Your task to perform on an android device: change notifications settings Image 0: 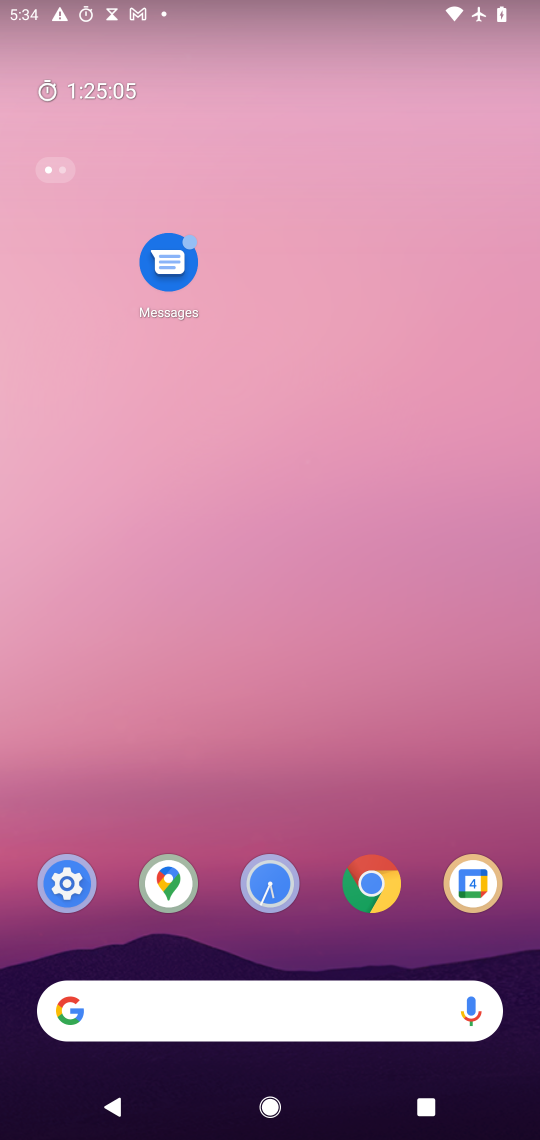
Step 0: drag from (308, 935) to (316, 68)
Your task to perform on an android device: change notifications settings Image 1: 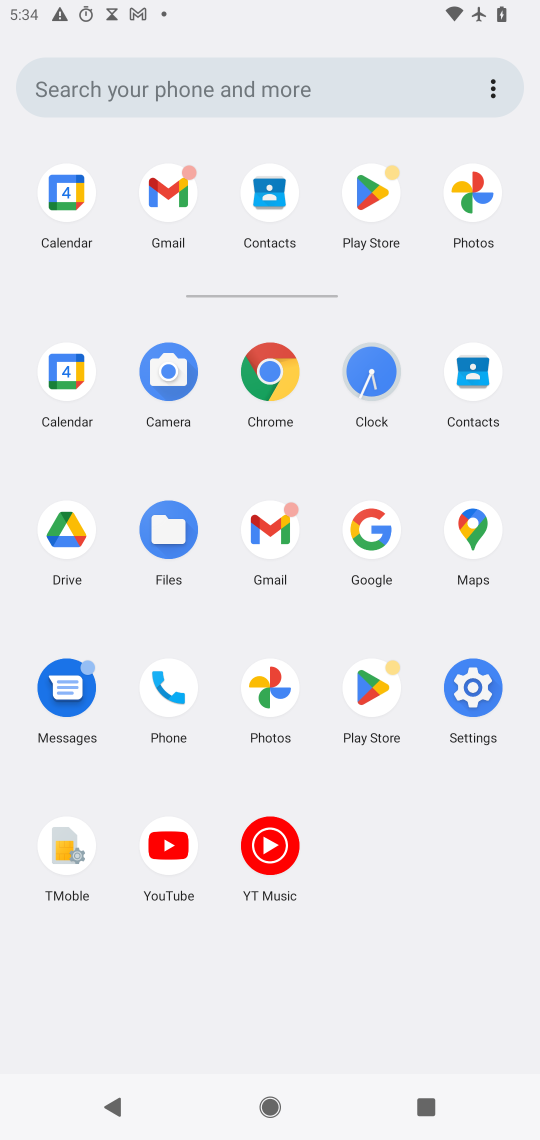
Step 1: click (475, 689)
Your task to perform on an android device: change notifications settings Image 2: 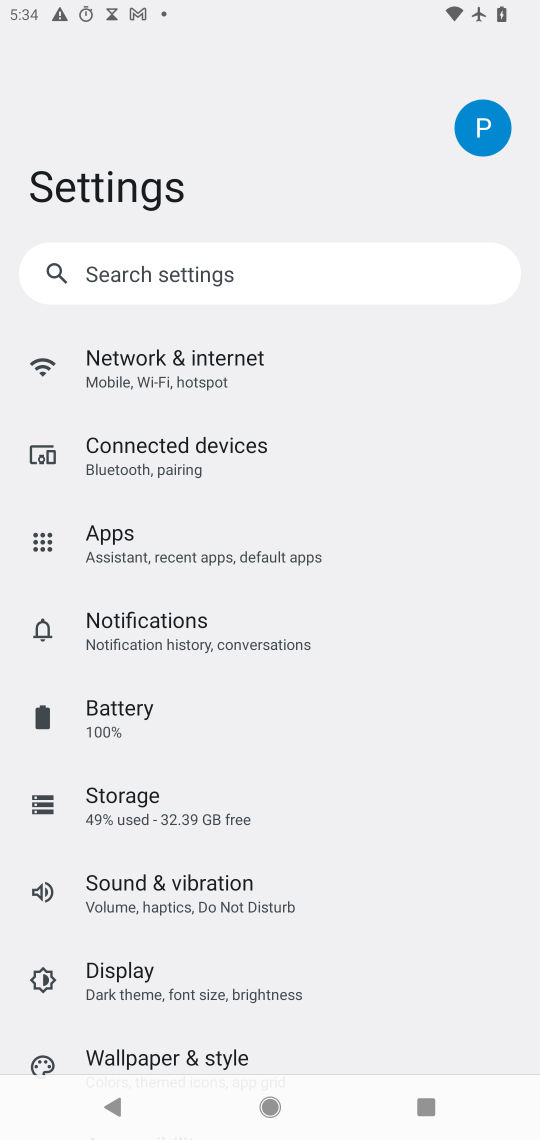
Step 2: click (188, 634)
Your task to perform on an android device: change notifications settings Image 3: 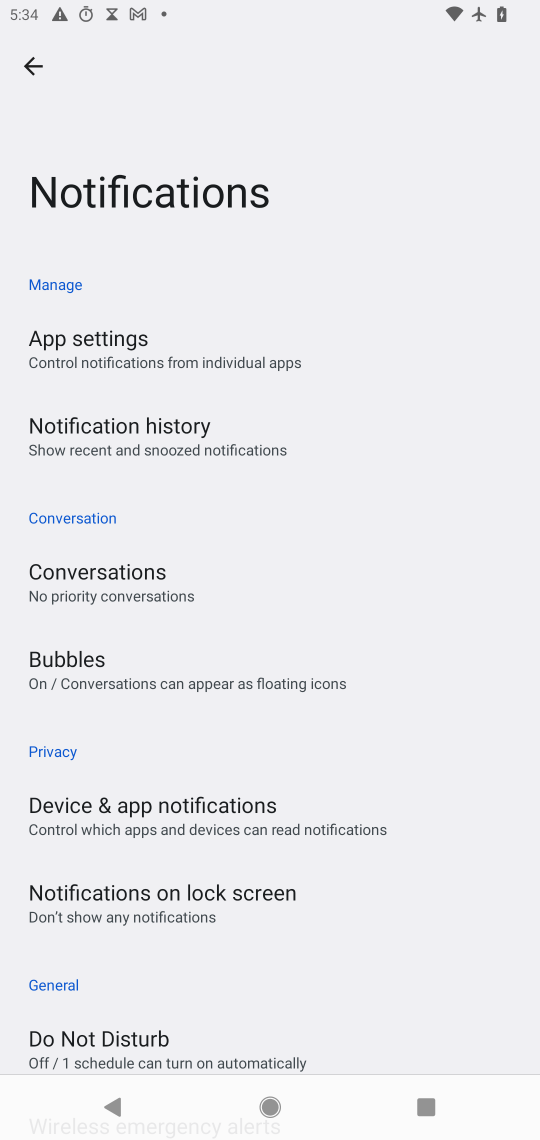
Step 3: drag from (206, 968) to (254, 582)
Your task to perform on an android device: change notifications settings Image 4: 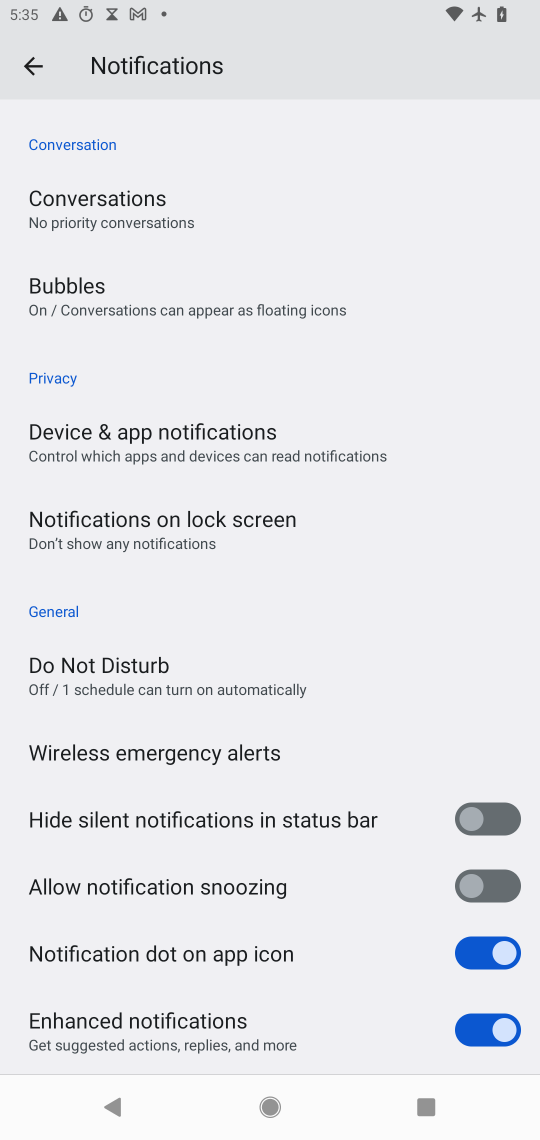
Step 4: click (506, 806)
Your task to perform on an android device: change notifications settings Image 5: 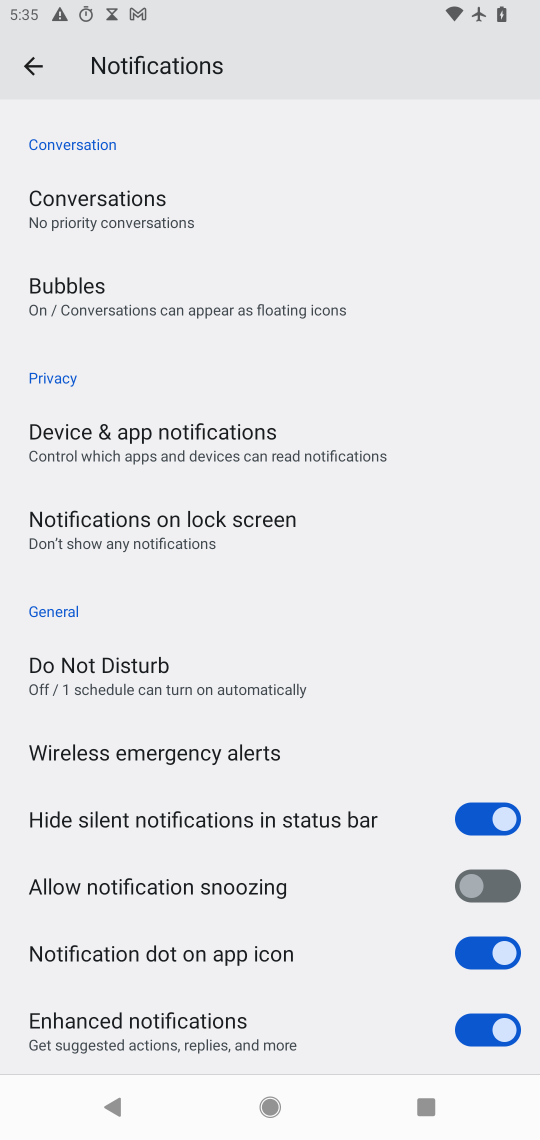
Step 5: task complete